Your task to perform on an android device: empty trash in google photos Image 0: 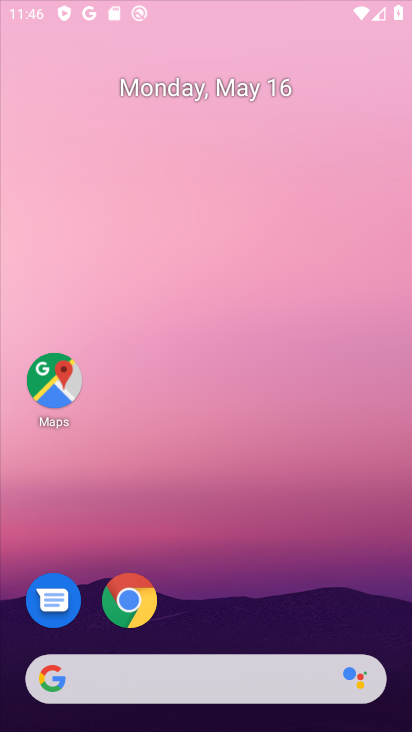
Step 0: click (275, 521)
Your task to perform on an android device: empty trash in google photos Image 1: 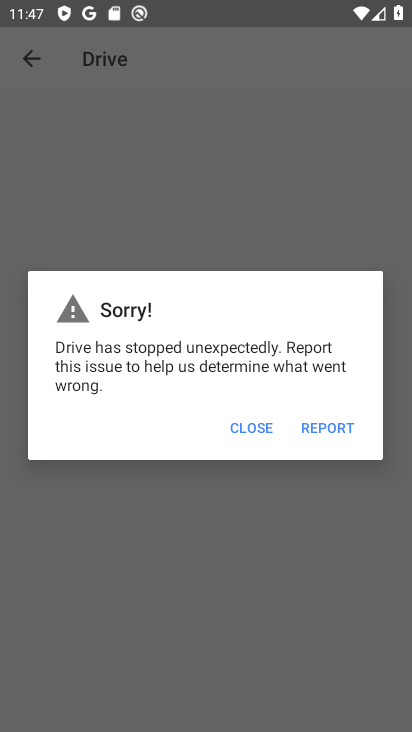
Step 1: press home button
Your task to perform on an android device: empty trash in google photos Image 2: 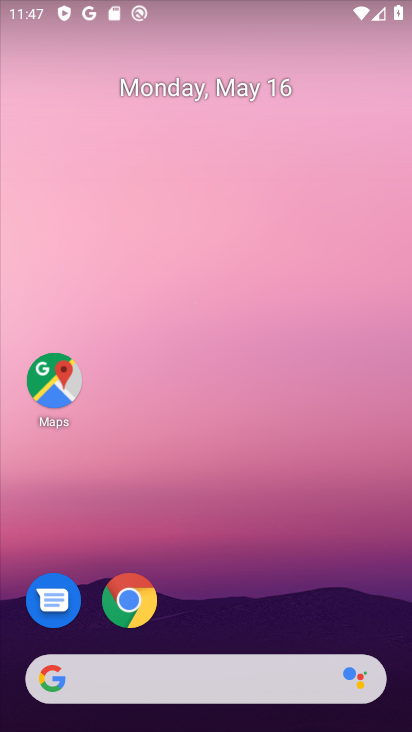
Step 2: drag from (307, 603) to (230, 41)
Your task to perform on an android device: empty trash in google photos Image 3: 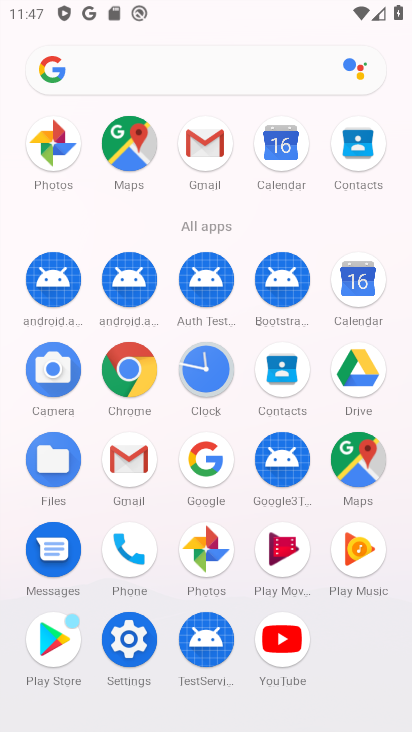
Step 3: click (202, 534)
Your task to perform on an android device: empty trash in google photos Image 4: 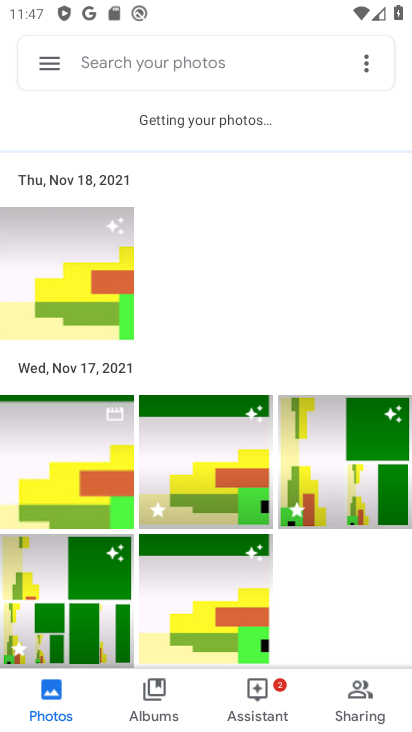
Step 4: click (40, 55)
Your task to perform on an android device: empty trash in google photos Image 5: 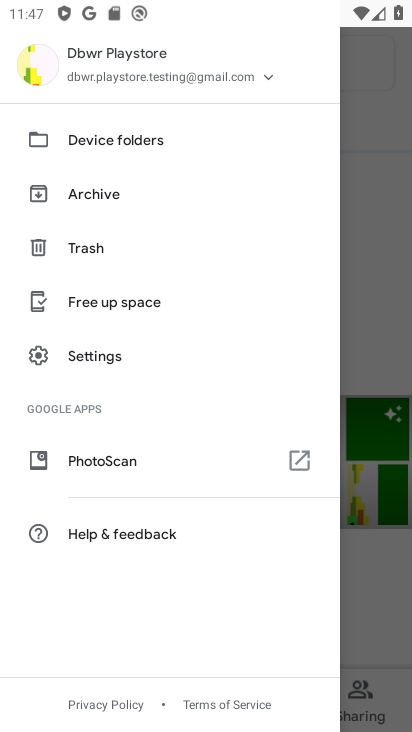
Step 5: click (78, 246)
Your task to perform on an android device: empty trash in google photos Image 6: 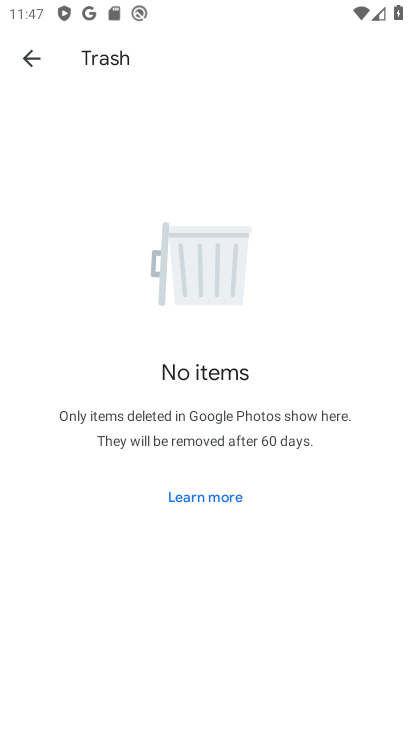
Step 6: task complete